Your task to perform on an android device: open a bookmark in the chrome app Image 0: 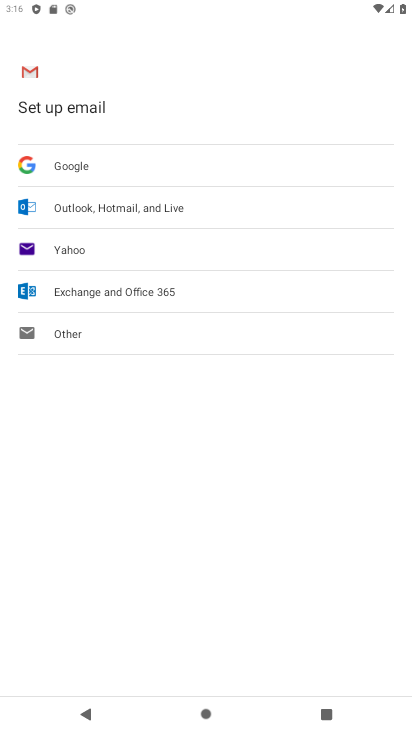
Step 0: press home button
Your task to perform on an android device: open a bookmark in the chrome app Image 1: 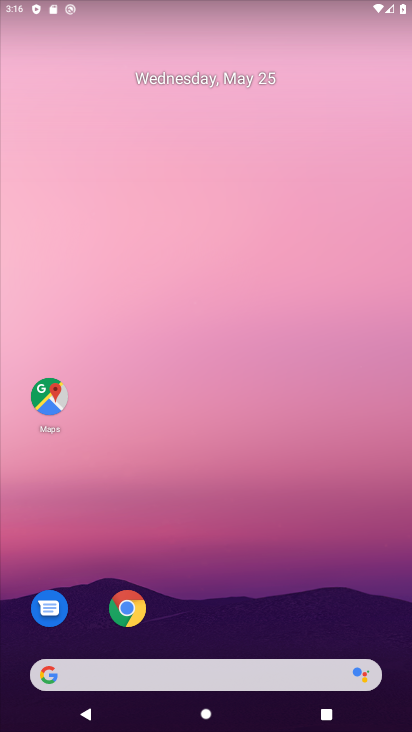
Step 1: click (128, 605)
Your task to perform on an android device: open a bookmark in the chrome app Image 2: 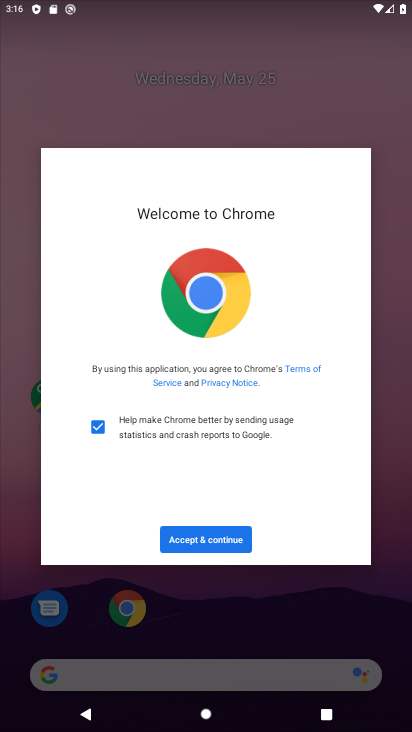
Step 2: click (178, 541)
Your task to perform on an android device: open a bookmark in the chrome app Image 3: 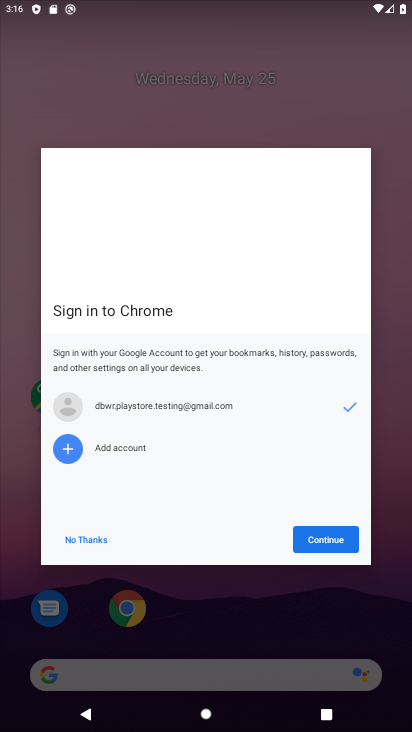
Step 3: click (322, 550)
Your task to perform on an android device: open a bookmark in the chrome app Image 4: 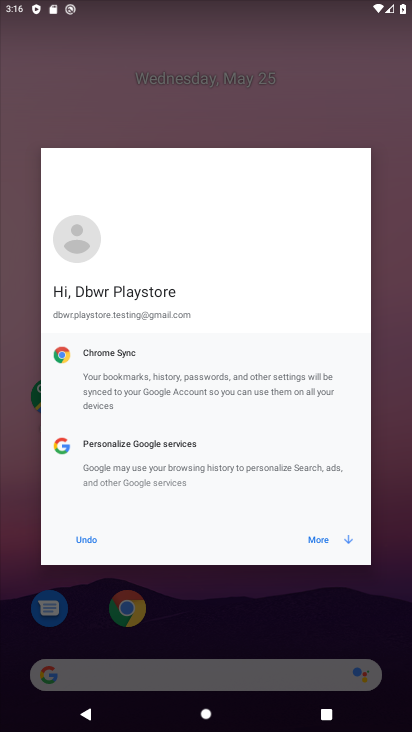
Step 4: click (320, 531)
Your task to perform on an android device: open a bookmark in the chrome app Image 5: 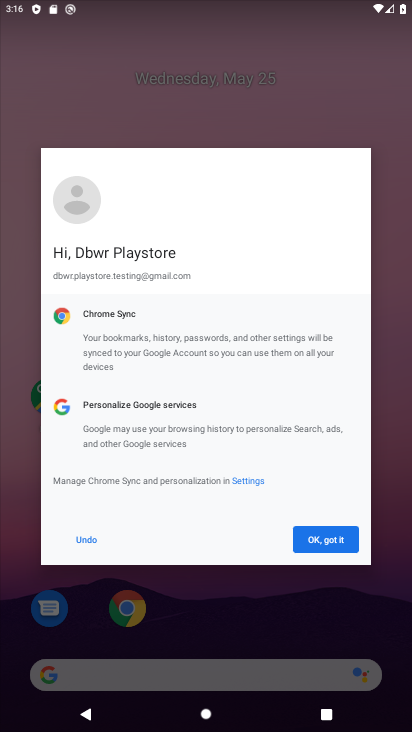
Step 5: click (320, 531)
Your task to perform on an android device: open a bookmark in the chrome app Image 6: 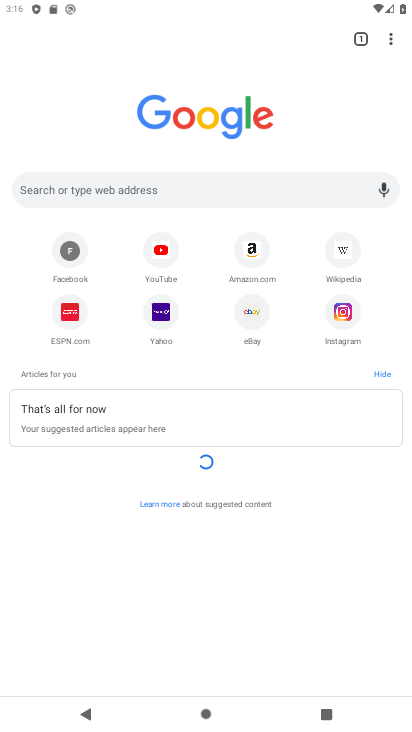
Step 6: click (390, 41)
Your task to perform on an android device: open a bookmark in the chrome app Image 7: 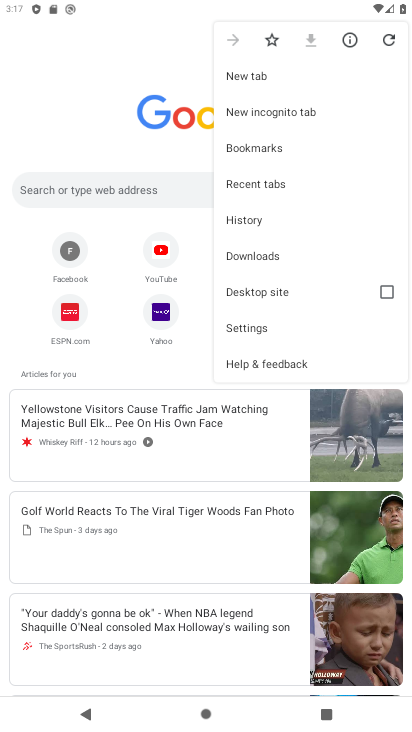
Step 7: click (254, 148)
Your task to perform on an android device: open a bookmark in the chrome app Image 8: 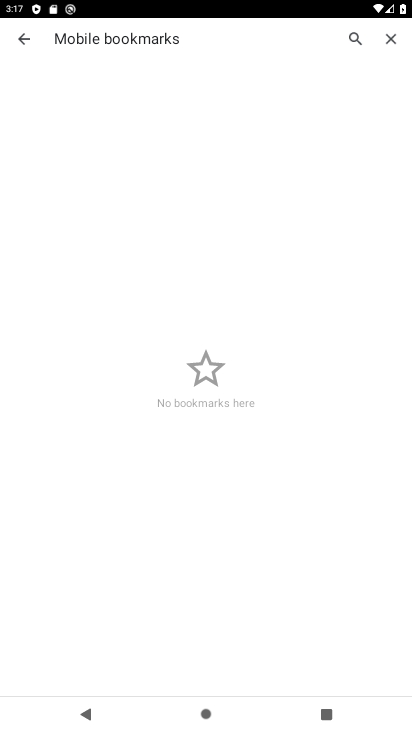
Step 8: task complete